Your task to perform on an android device: turn off javascript in the chrome app Image 0: 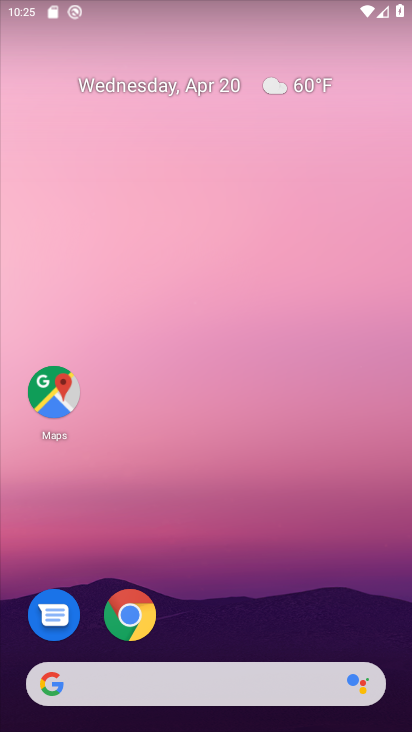
Step 0: drag from (347, 612) to (339, 156)
Your task to perform on an android device: turn off javascript in the chrome app Image 1: 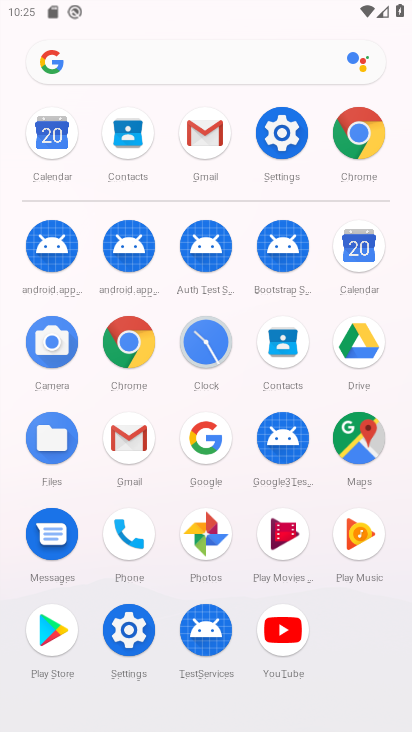
Step 1: click (344, 148)
Your task to perform on an android device: turn off javascript in the chrome app Image 2: 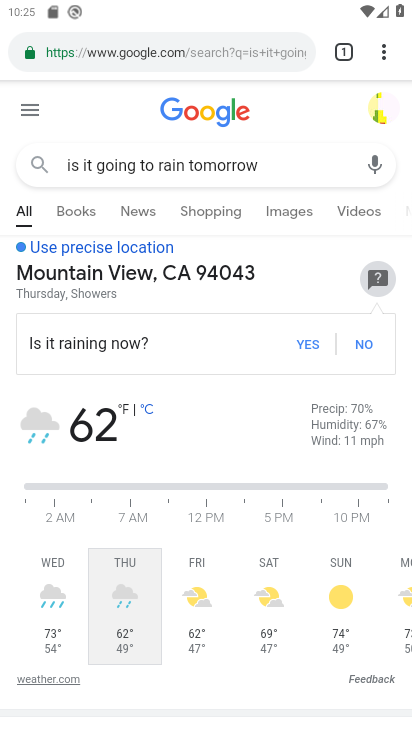
Step 2: drag from (381, 63) to (241, 584)
Your task to perform on an android device: turn off javascript in the chrome app Image 3: 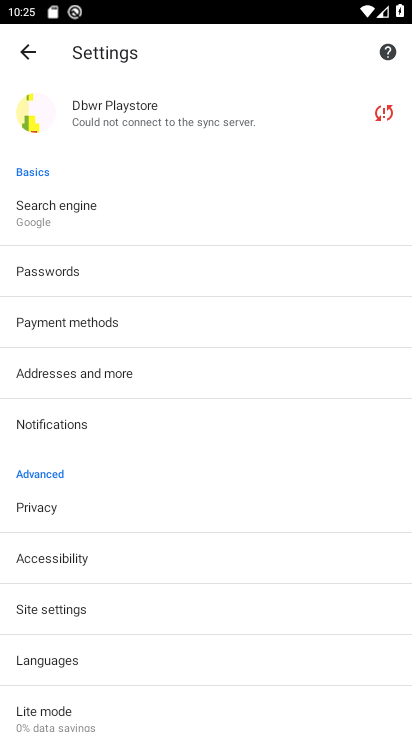
Step 3: click (84, 602)
Your task to perform on an android device: turn off javascript in the chrome app Image 4: 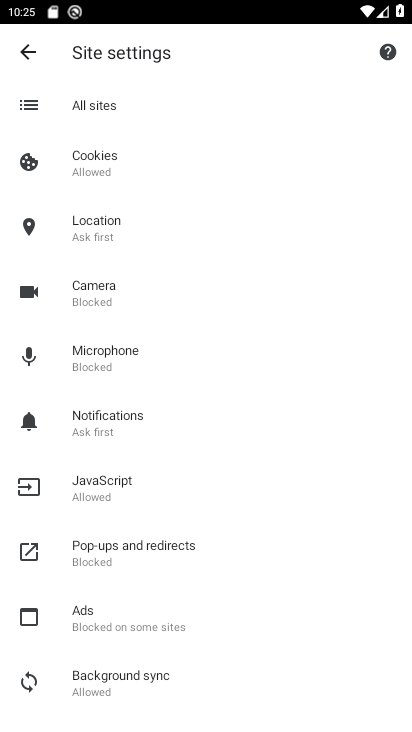
Step 4: click (120, 486)
Your task to perform on an android device: turn off javascript in the chrome app Image 5: 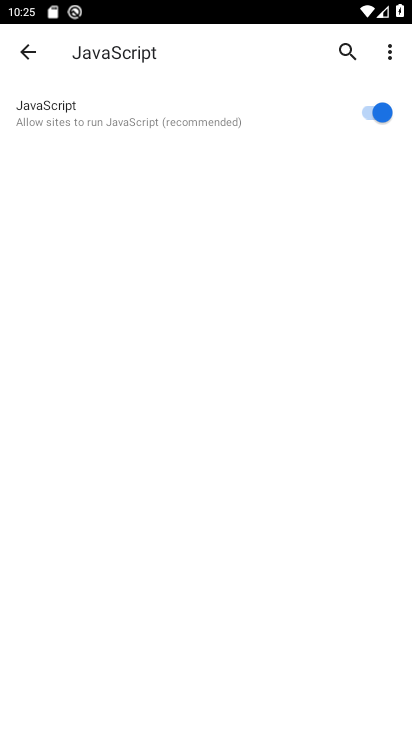
Step 5: click (374, 110)
Your task to perform on an android device: turn off javascript in the chrome app Image 6: 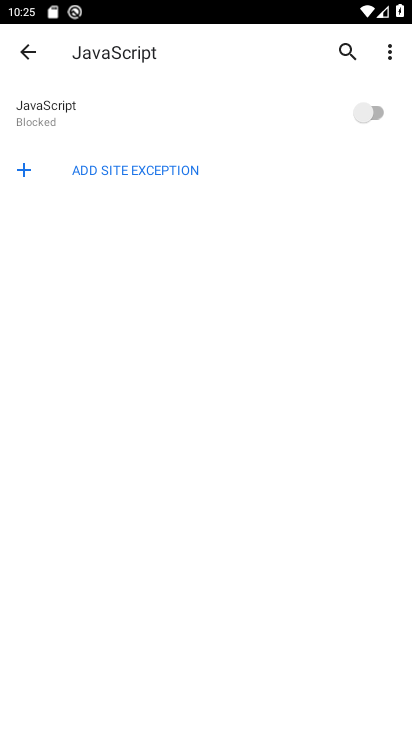
Step 6: task complete